Your task to perform on an android device: Open internet settings Image 0: 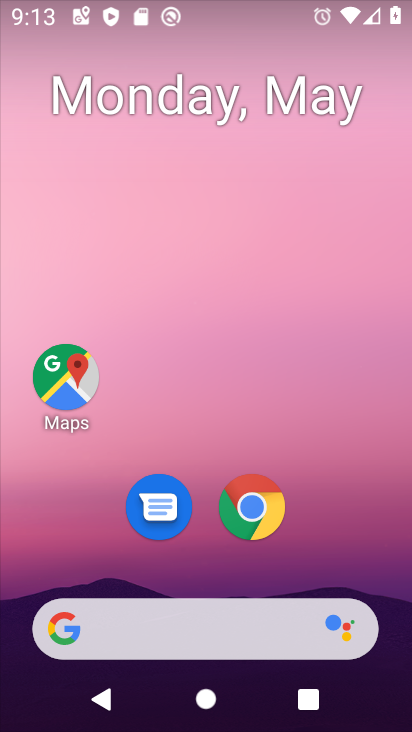
Step 0: drag from (218, 540) to (341, 9)
Your task to perform on an android device: Open internet settings Image 1: 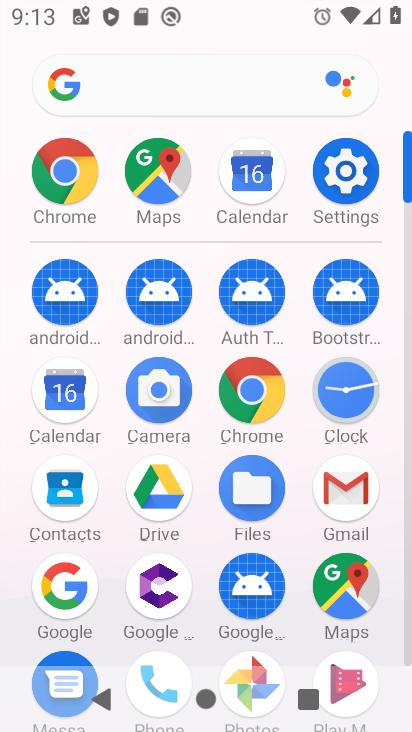
Step 1: click (359, 209)
Your task to perform on an android device: Open internet settings Image 2: 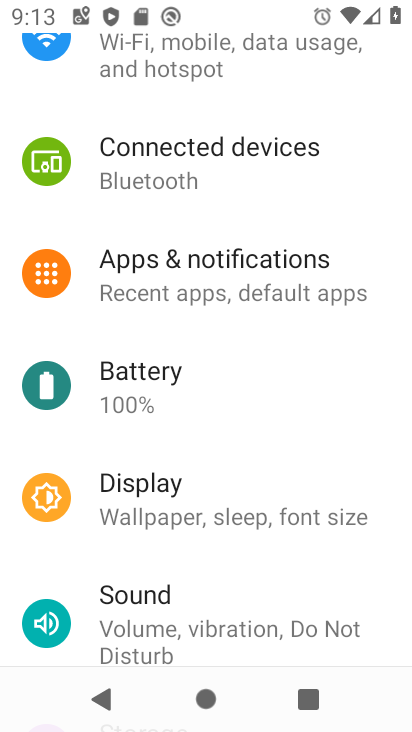
Step 2: drag from (238, 134) to (254, 557)
Your task to perform on an android device: Open internet settings Image 3: 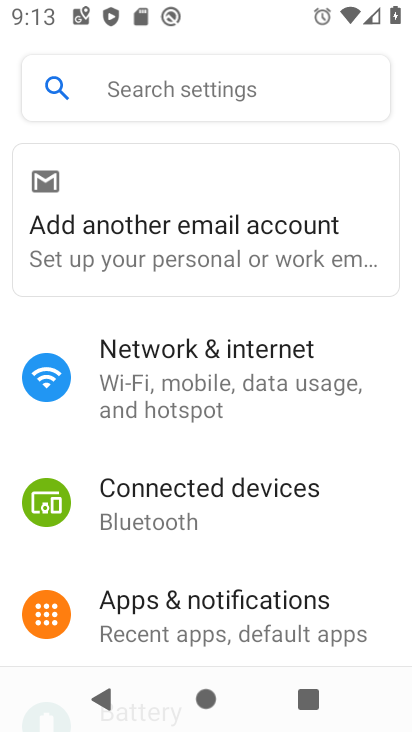
Step 3: click (220, 363)
Your task to perform on an android device: Open internet settings Image 4: 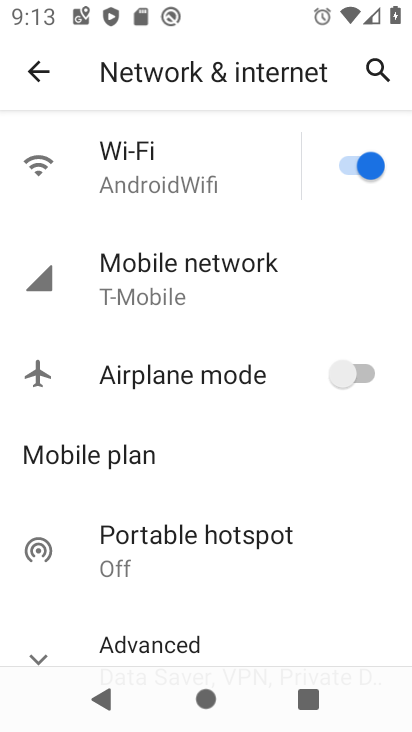
Step 4: click (160, 275)
Your task to perform on an android device: Open internet settings Image 5: 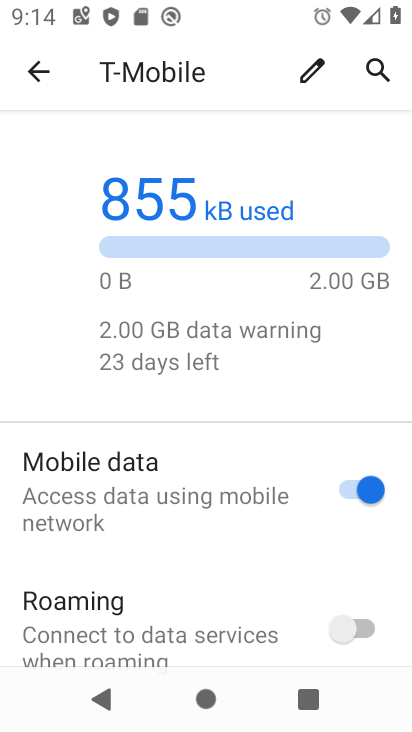
Step 5: task complete